Your task to perform on an android device: Open Google Image 0: 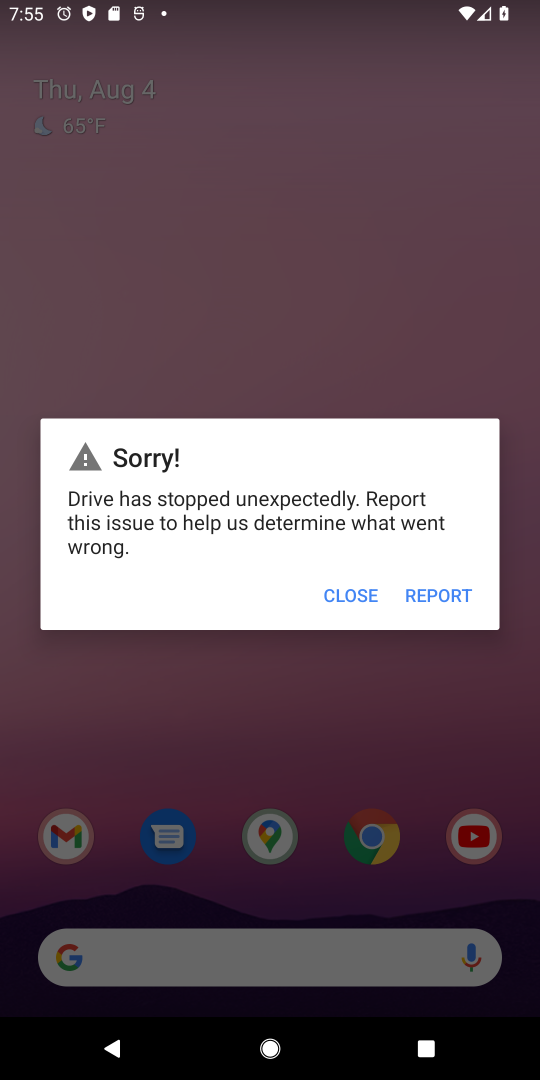
Step 0: click (329, 599)
Your task to perform on an android device: Open Google Image 1: 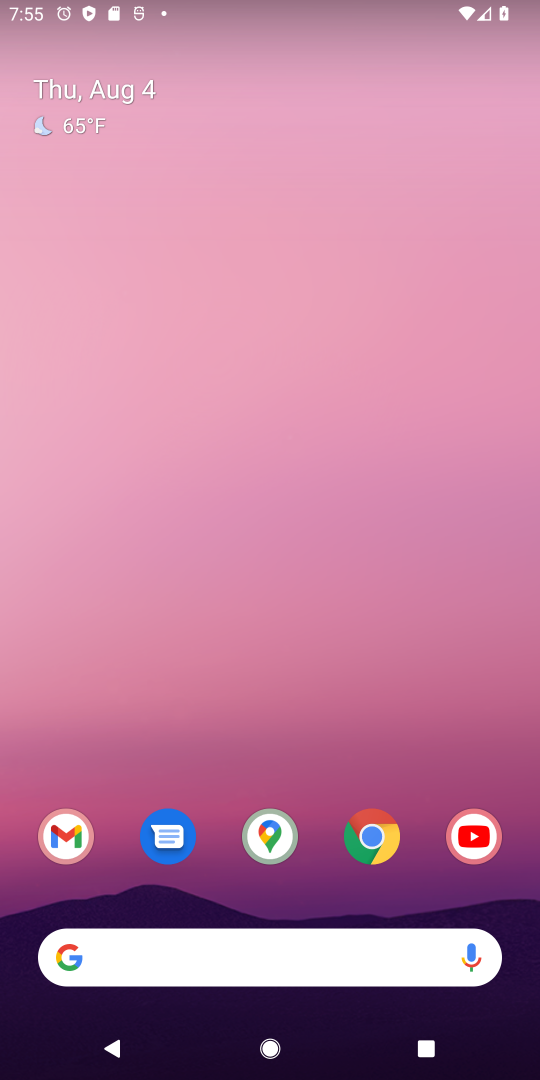
Step 1: drag from (148, 847) to (212, 133)
Your task to perform on an android device: Open Google Image 2: 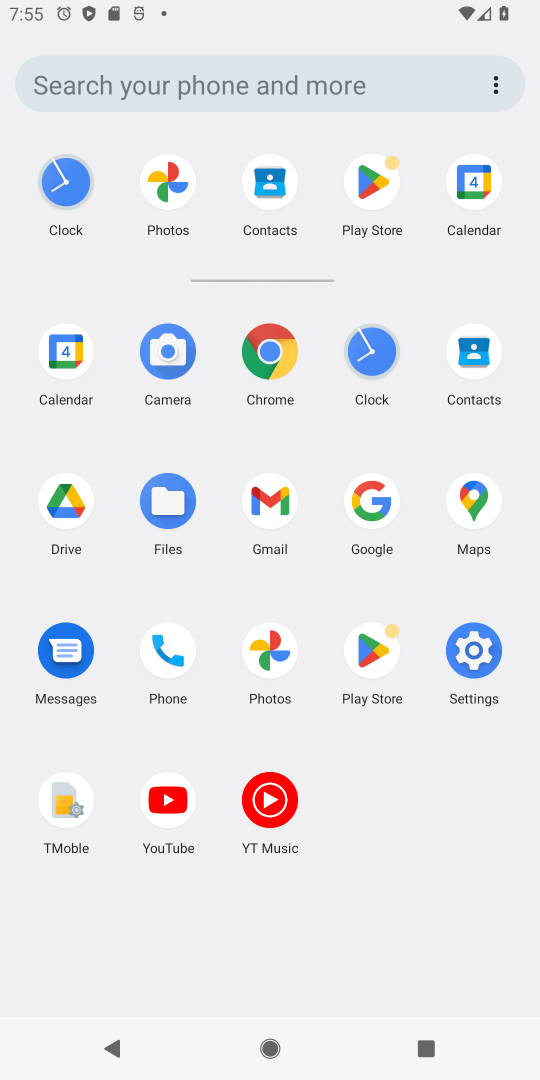
Step 2: click (365, 497)
Your task to perform on an android device: Open Google Image 3: 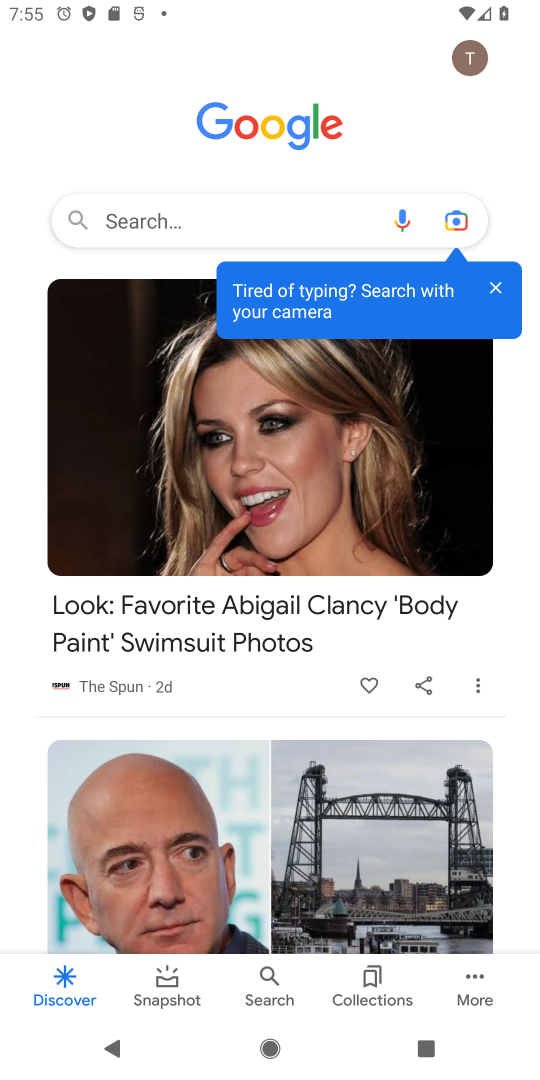
Step 3: task complete